Your task to perform on an android device: Open Google Maps and go to "Timeline" Image 0: 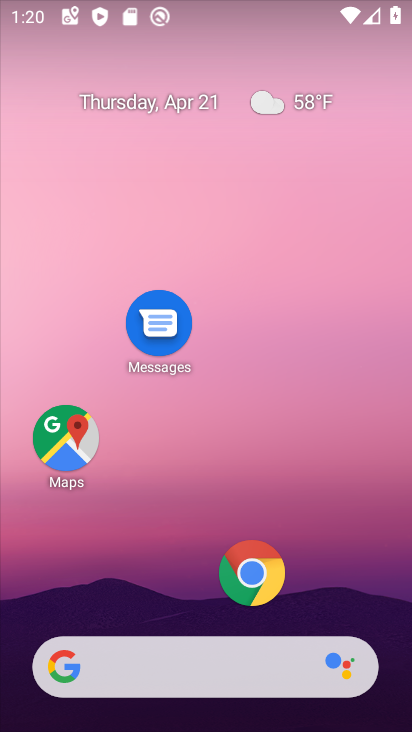
Step 0: click (67, 445)
Your task to perform on an android device: Open Google Maps and go to "Timeline" Image 1: 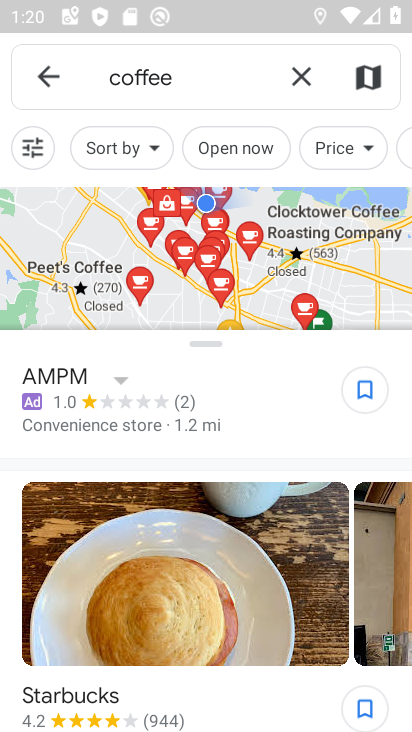
Step 1: press back button
Your task to perform on an android device: Open Google Maps and go to "Timeline" Image 2: 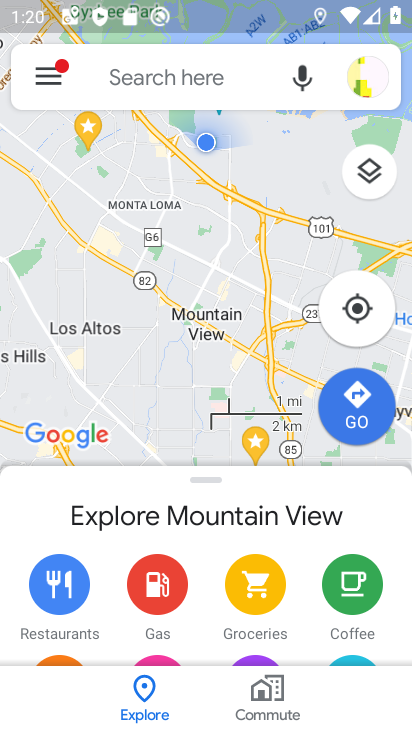
Step 2: click (59, 74)
Your task to perform on an android device: Open Google Maps and go to "Timeline" Image 3: 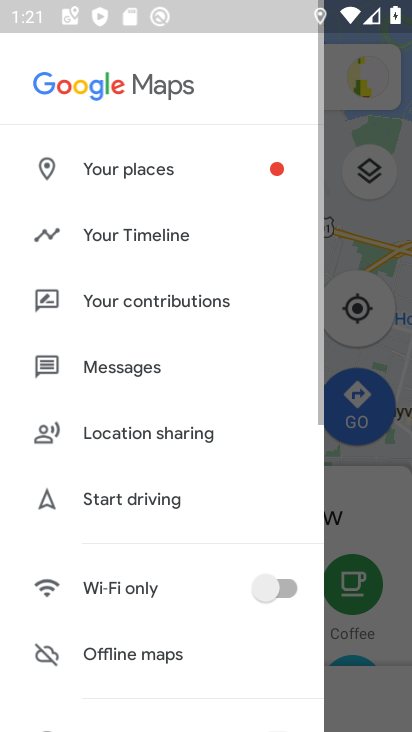
Step 3: click (125, 232)
Your task to perform on an android device: Open Google Maps and go to "Timeline" Image 4: 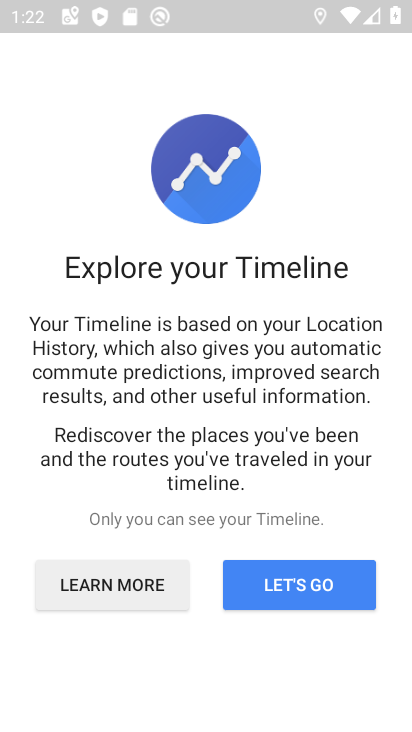
Step 4: drag from (123, 589) to (405, 620)
Your task to perform on an android device: Open Google Maps and go to "Timeline" Image 5: 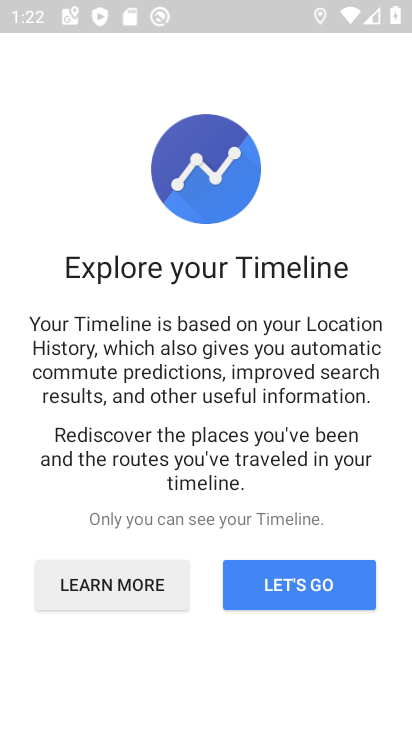
Step 5: click (318, 580)
Your task to perform on an android device: Open Google Maps and go to "Timeline" Image 6: 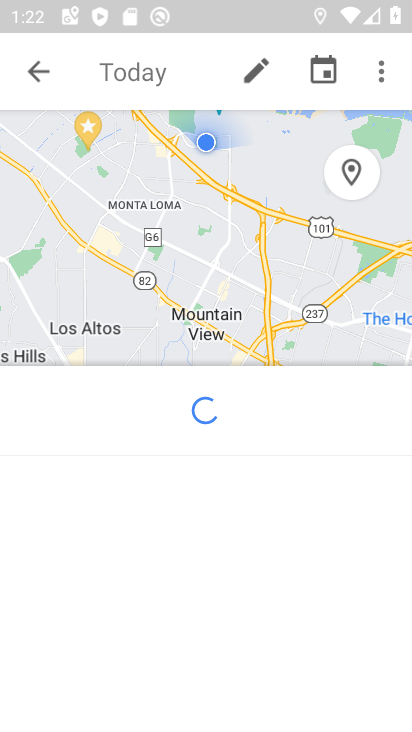
Step 6: task complete